Your task to perform on an android device: Open my contact list Image 0: 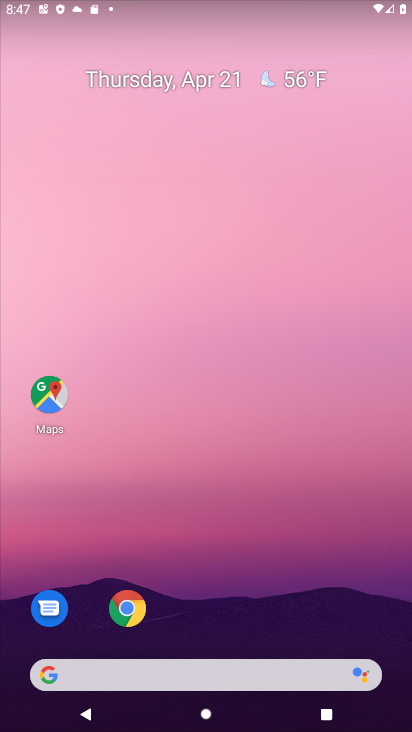
Step 0: drag from (324, 590) to (268, 167)
Your task to perform on an android device: Open my contact list Image 1: 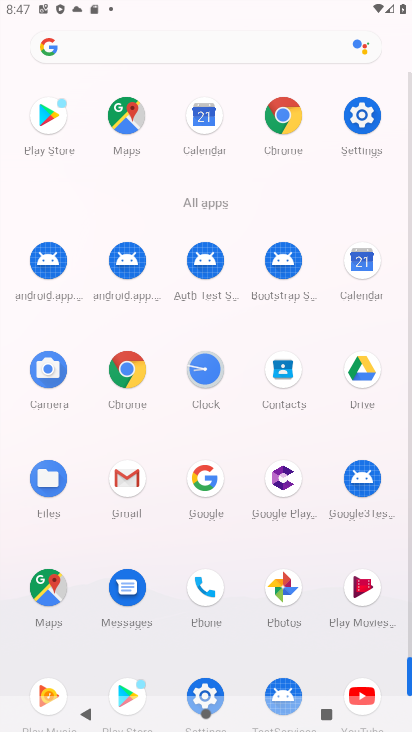
Step 1: click (287, 368)
Your task to perform on an android device: Open my contact list Image 2: 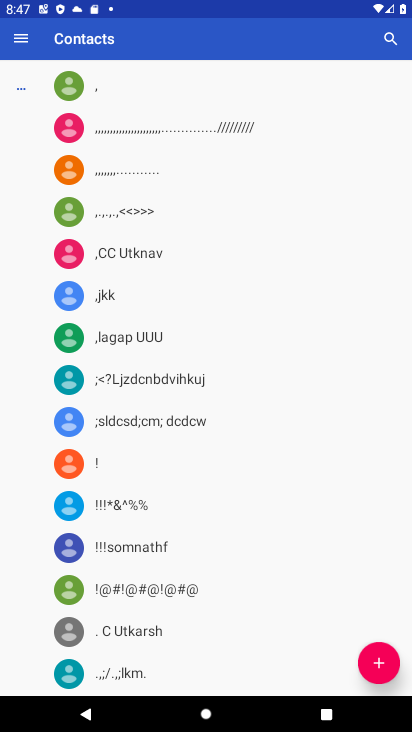
Step 2: task complete